Your task to perform on an android device: check the backup settings in the google photos Image 0: 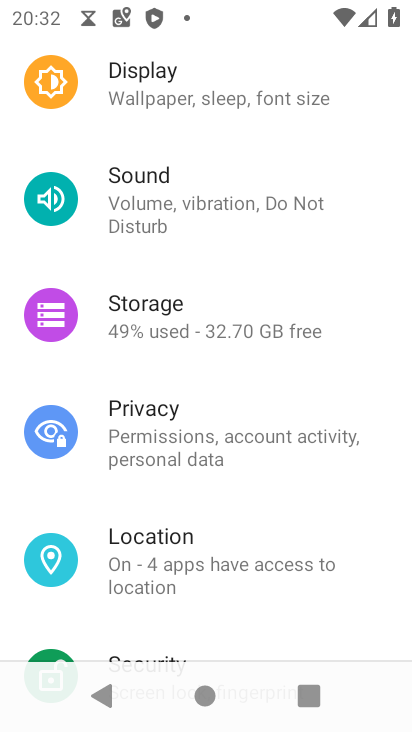
Step 0: press home button
Your task to perform on an android device: check the backup settings in the google photos Image 1: 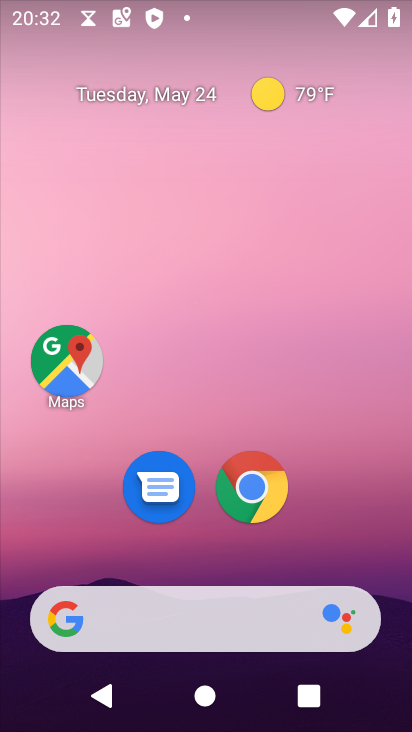
Step 1: drag from (45, 530) to (265, 100)
Your task to perform on an android device: check the backup settings in the google photos Image 2: 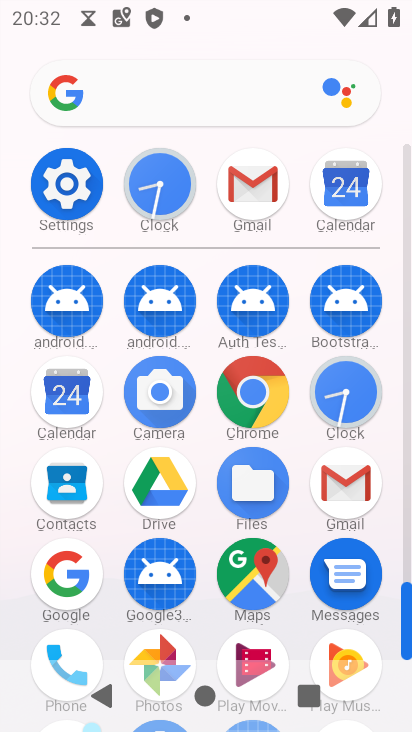
Step 2: click (156, 645)
Your task to perform on an android device: check the backup settings in the google photos Image 3: 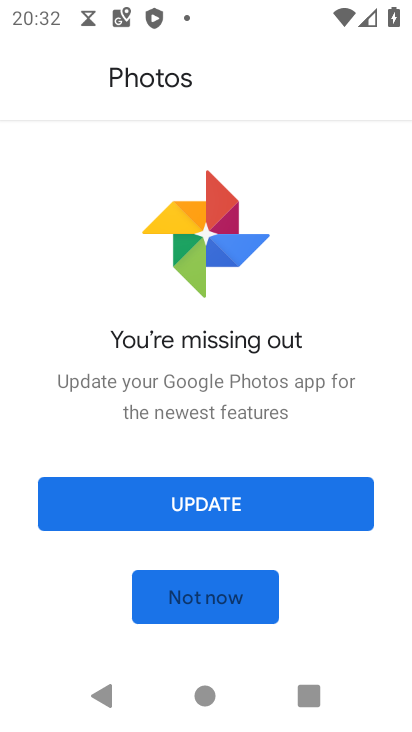
Step 3: click (281, 422)
Your task to perform on an android device: check the backup settings in the google photos Image 4: 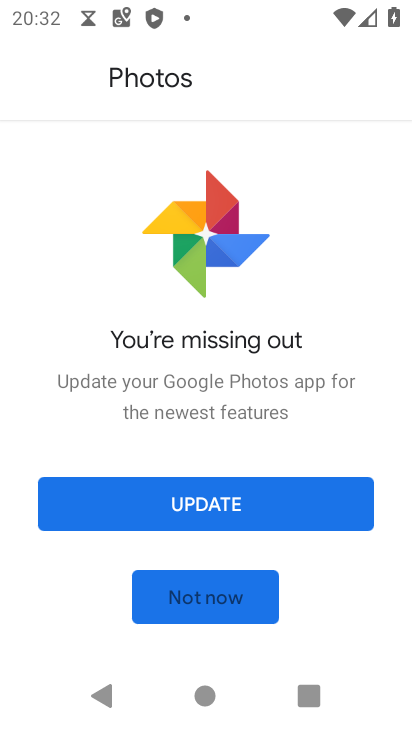
Step 4: press back button
Your task to perform on an android device: check the backup settings in the google photos Image 5: 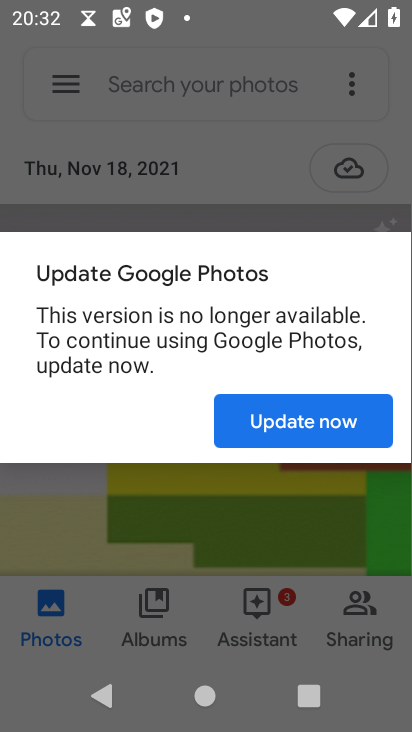
Step 5: click (349, 419)
Your task to perform on an android device: check the backup settings in the google photos Image 6: 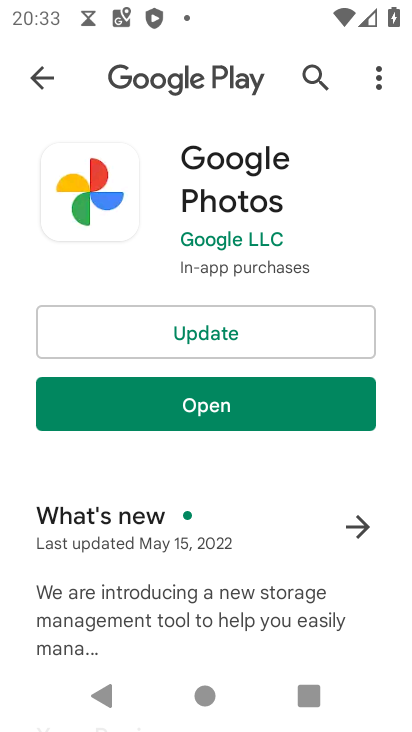
Step 6: click (198, 409)
Your task to perform on an android device: check the backup settings in the google photos Image 7: 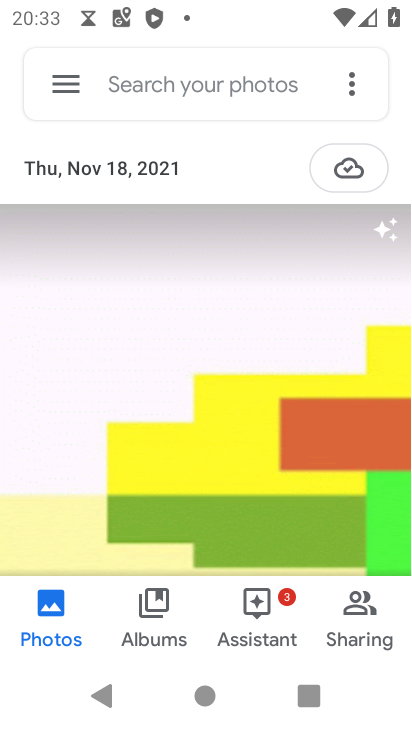
Step 7: click (54, 90)
Your task to perform on an android device: check the backup settings in the google photos Image 8: 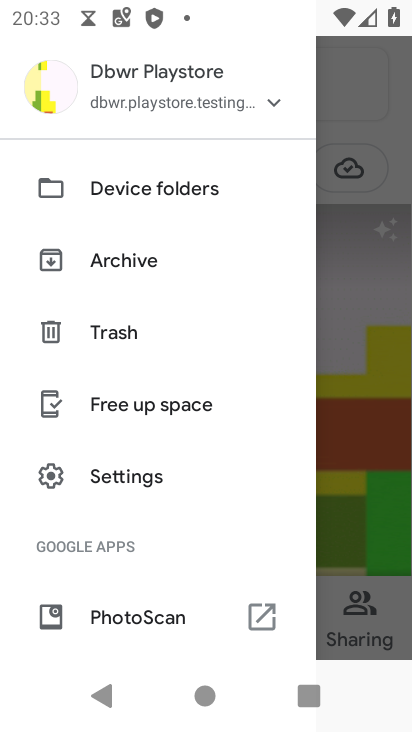
Step 8: drag from (10, 628) to (176, 260)
Your task to perform on an android device: check the backup settings in the google photos Image 9: 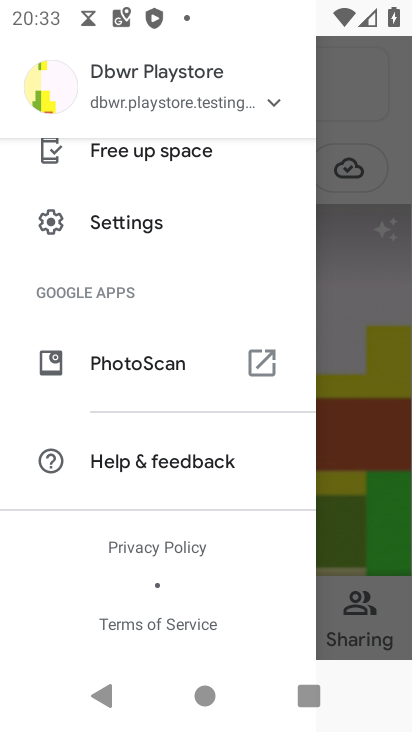
Step 9: click (99, 222)
Your task to perform on an android device: check the backup settings in the google photos Image 10: 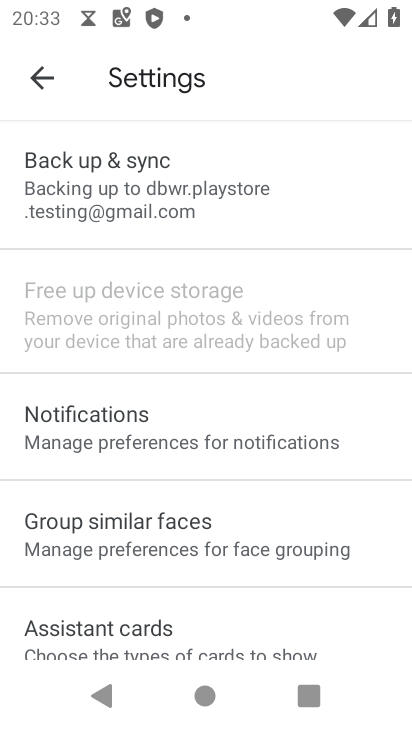
Step 10: click (99, 184)
Your task to perform on an android device: check the backup settings in the google photos Image 11: 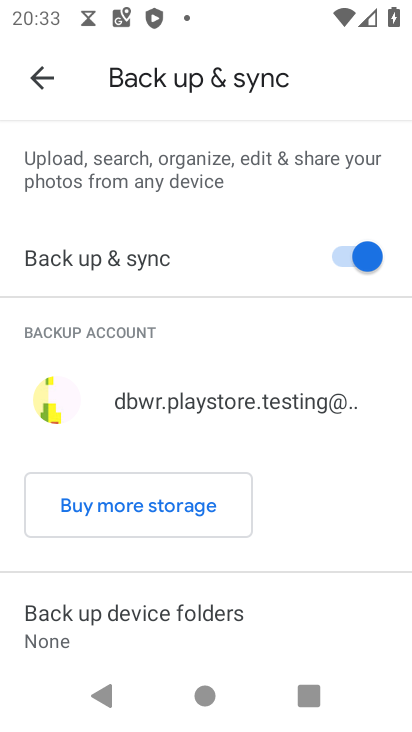
Step 11: task complete